Your task to perform on an android device: Open the calendar and show me this week's events? Image 0: 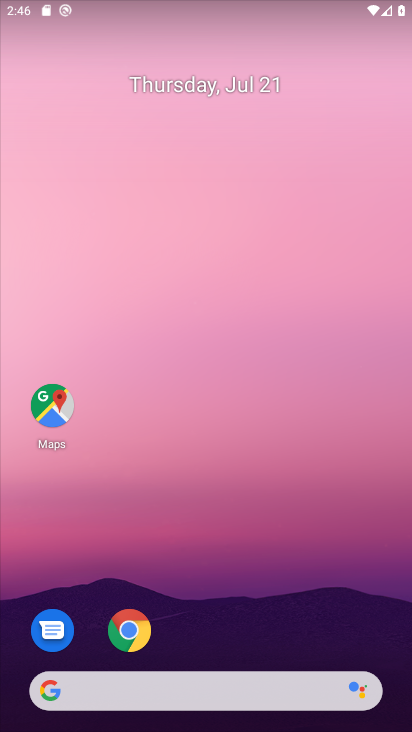
Step 0: drag from (304, 630) to (334, 241)
Your task to perform on an android device: Open the calendar and show me this week's events? Image 1: 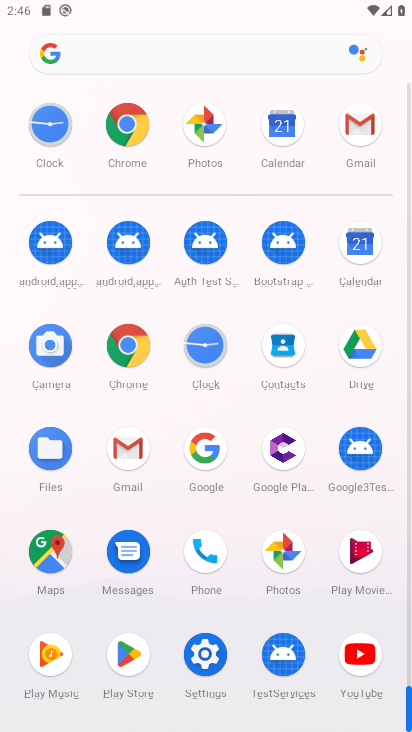
Step 1: click (362, 255)
Your task to perform on an android device: Open the calendar and show me this week's events? Image 2: 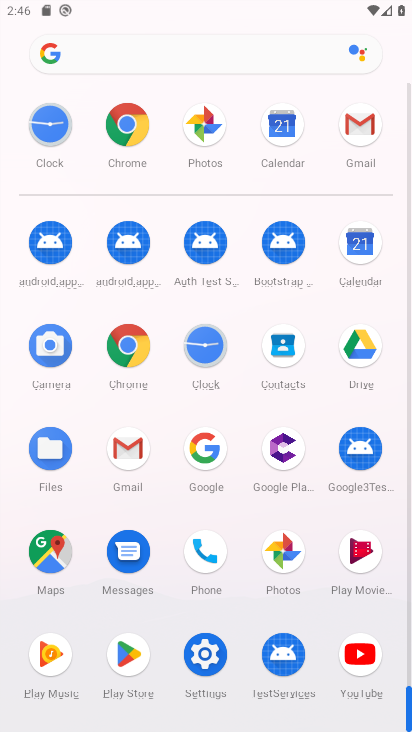
Step 2: click (360, 249)
Your task to perform on an android device: Open the calendar and show me this week's events? Image 3: 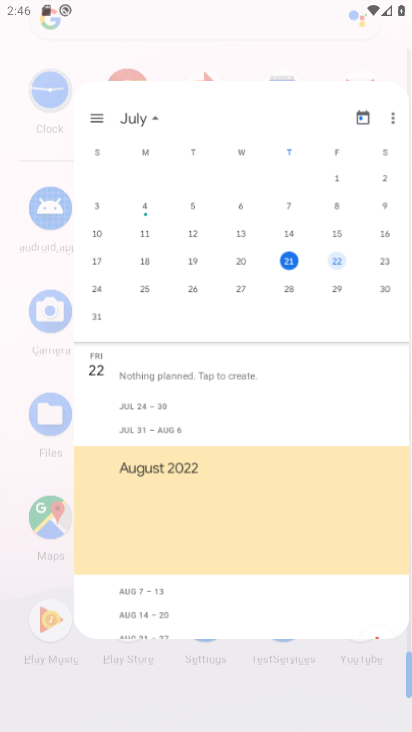
Step 3: click (356, 248)
Your task to perform on an android device: Open the calendar and show me this week's events? Image 4: 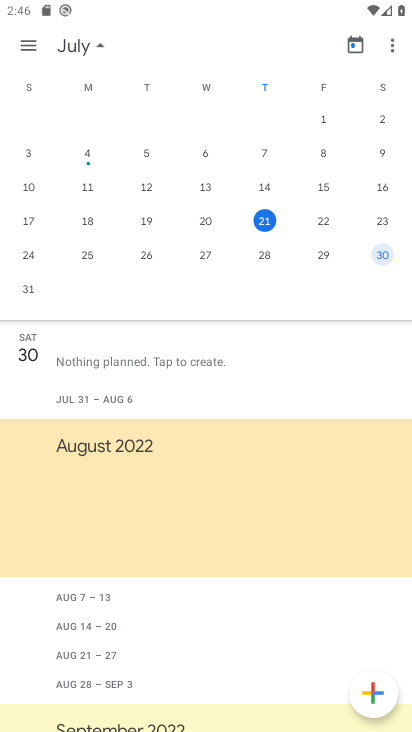
Step 4: click (379, 216)
Your task to perform on an android device: Open the calendar and show me this week's events? Image 5: 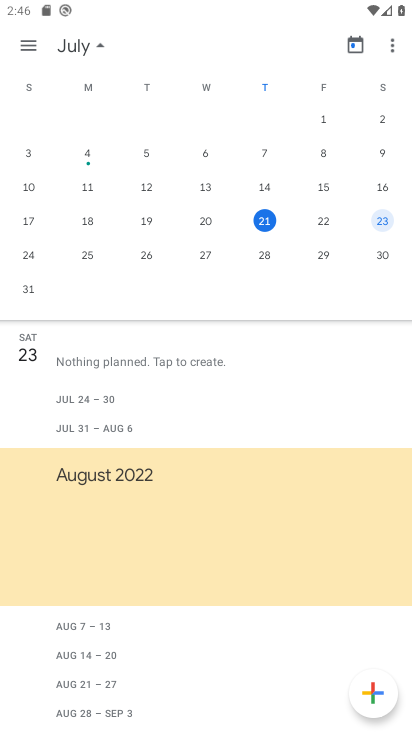
Step 5: click (380, 215)
Your task to perform on an android device: Open the calendar and show me this week's events? Image 6: 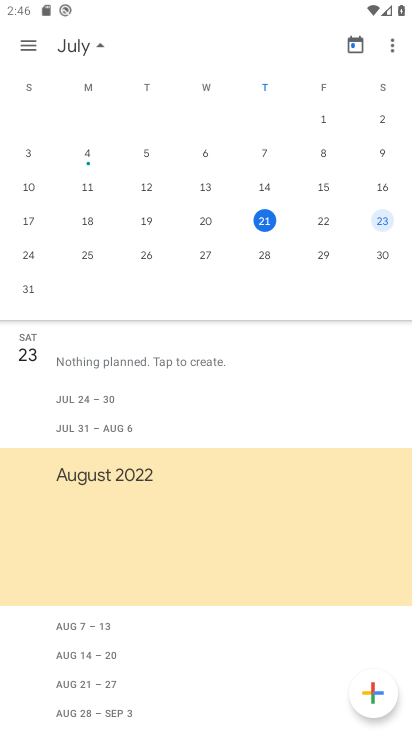
Step 6: task complete